Your task to perform on an android device: Search for "usb-c to usb-a" on amazon, select the first entry, and add it to the cart. Image 0: 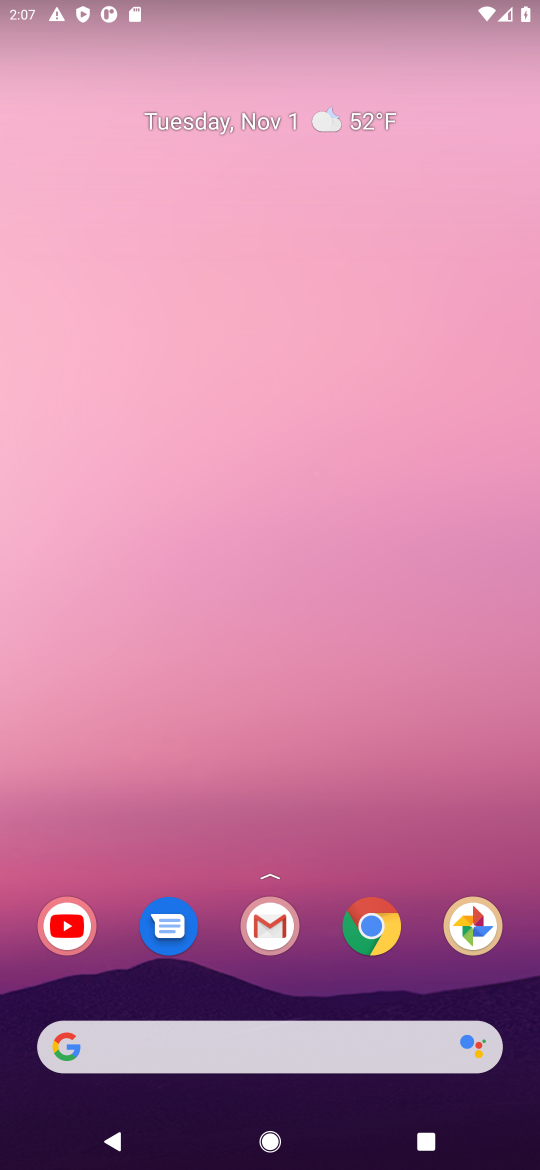
Step 0: click (464, 1087)
Your task to perform on an android device: Search for "usb-c to usb-a" on amazon, select the first entry, and add it to the cart. Image 1: 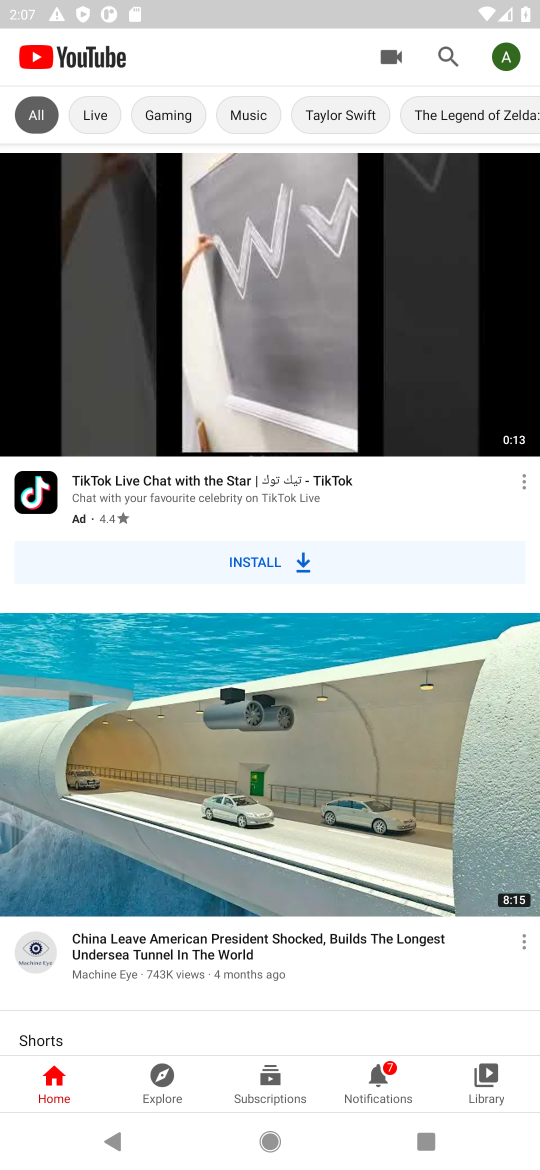
Step 1: press home button
Your task to perform on an android device: Search for "usb-c to usb-a" on amazon, select the first entry, and add it to the cart. Image 2: 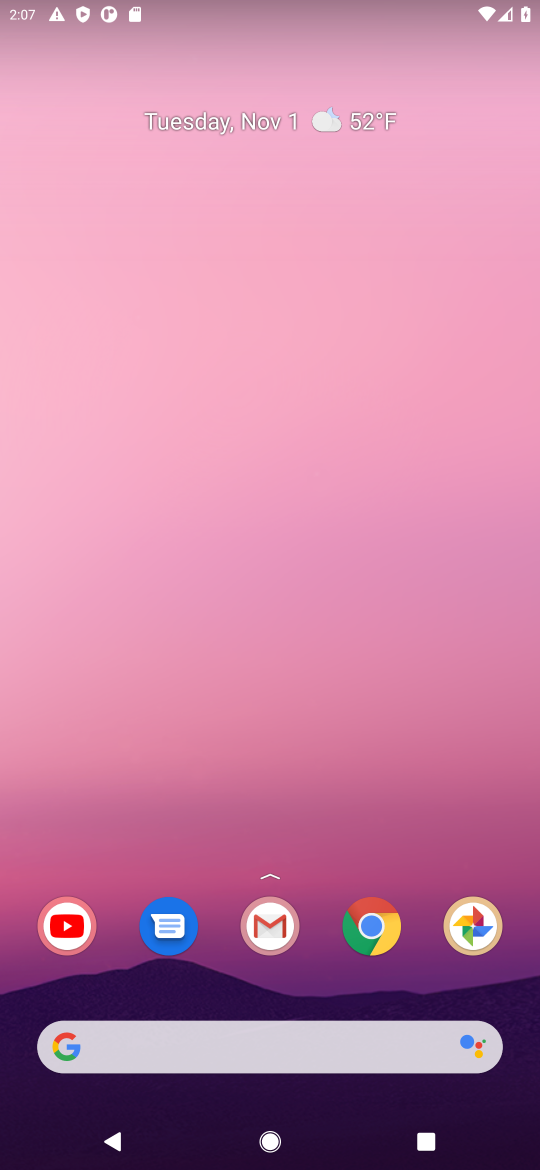
Step 2: click (370, 928)
Your task to perform on an android device: Search for "usb-c to usb-a" on amazon, select the first entry, and add it to the cart. Image 3: 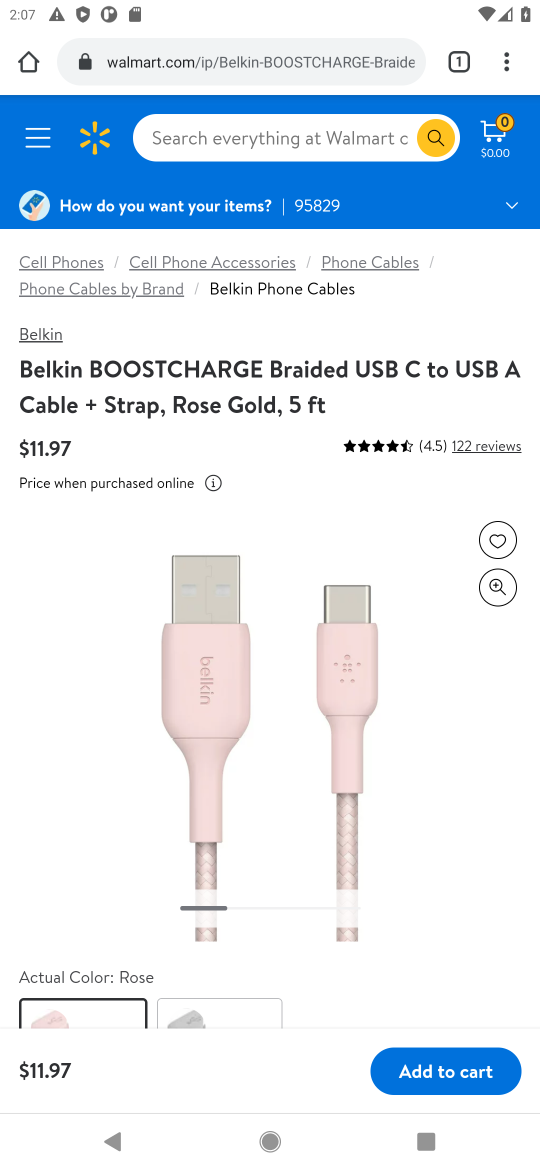
Step 3: click (303, 58)
Your task to perform on an android device: Search for "usb-c to usb-a" on amazon, select the first entry, and add it to the cart. Image 4: 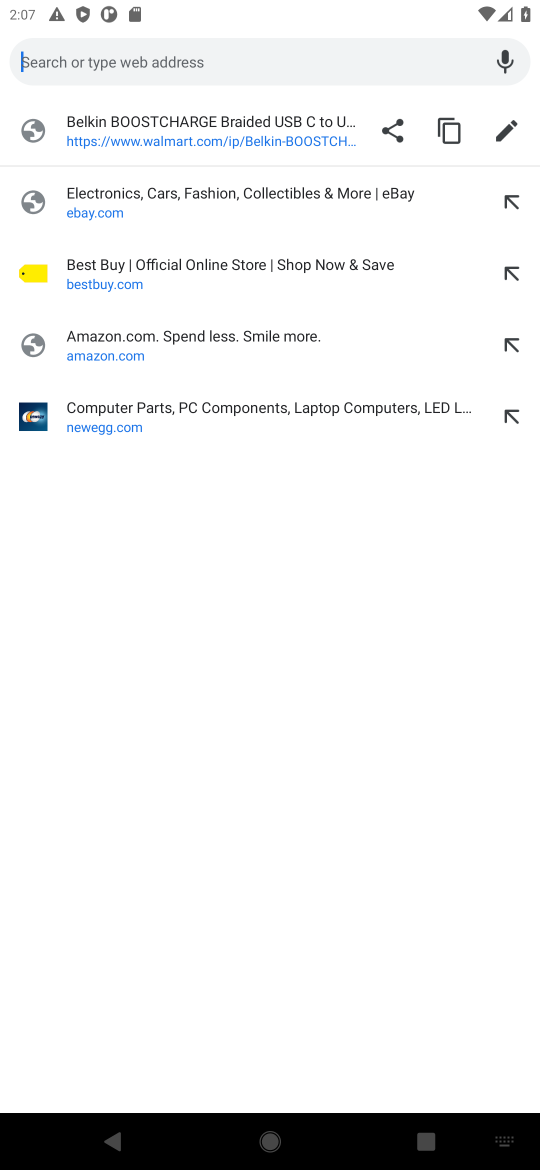
Step 4: type "amazon"
Your task to perform on an android device: Search for "usb-c to usb-a" on amazon, select the first entry, and add it to the cart. Image 5: 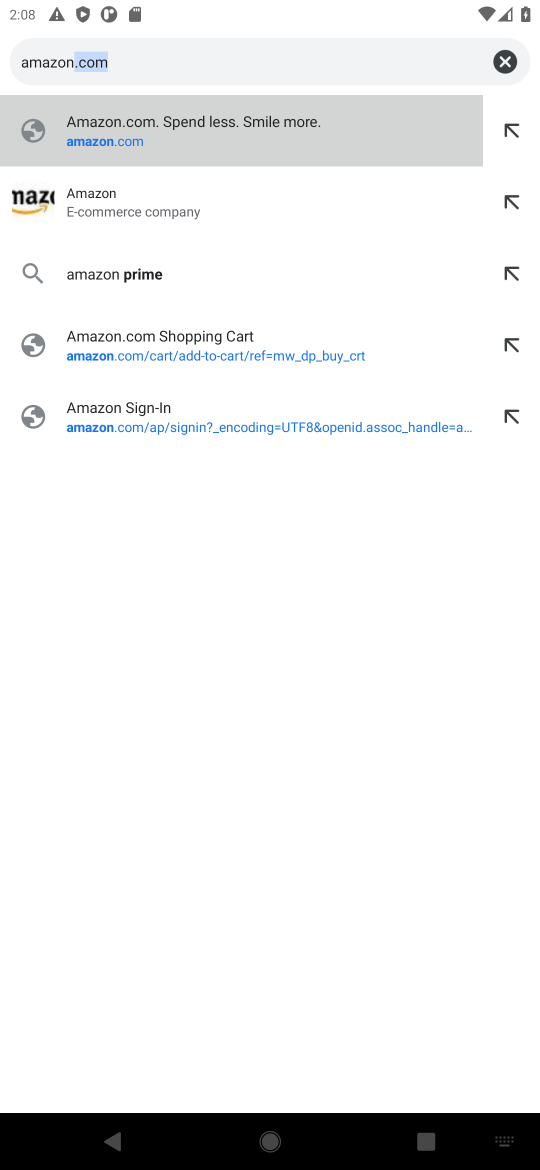
Step 5: press enter
Your task to perform on an android device: Search for "usb-c to usb-a" on amazon, select the first entry, and add it to the cart. Image 6: 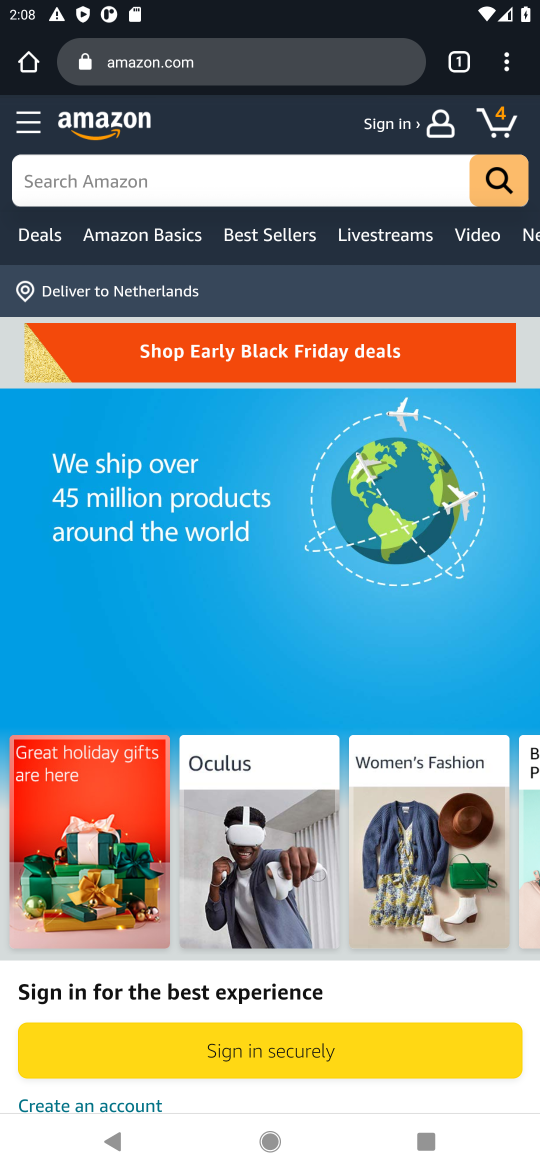
Step 6: click (212, 169)
Your task to perform on an android device: Search for "usb-c to usb-a" on amazon, select the first entry, and add it to the cart. Image 7: 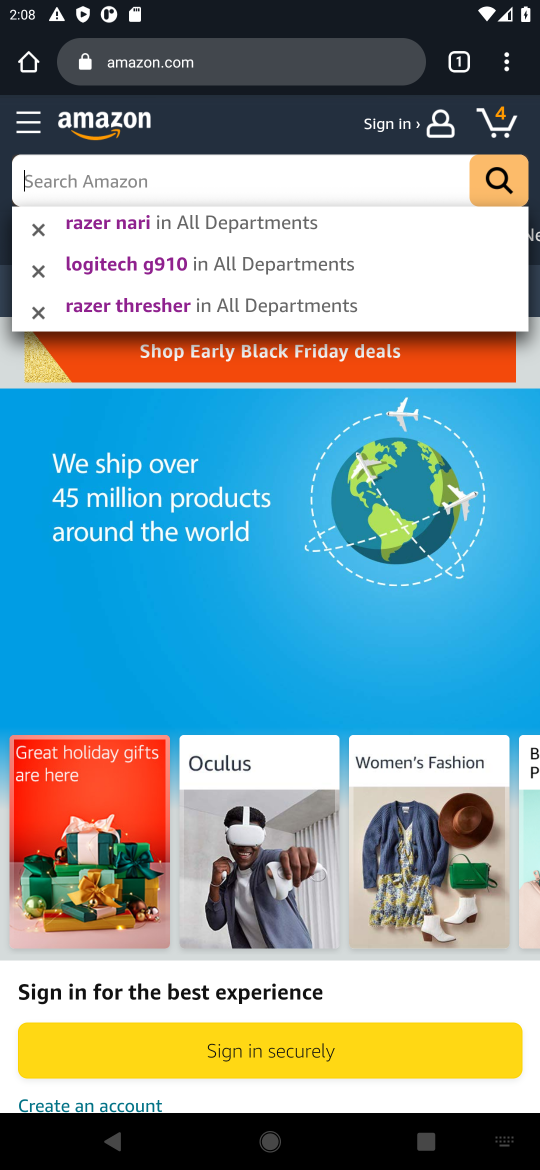
Step 7: type "usb-c to usb-a"
Your task to perform on an android device: Search for "usb-c to usb-a" on amazon, select the first entry, and add it to the cart. Image 8: 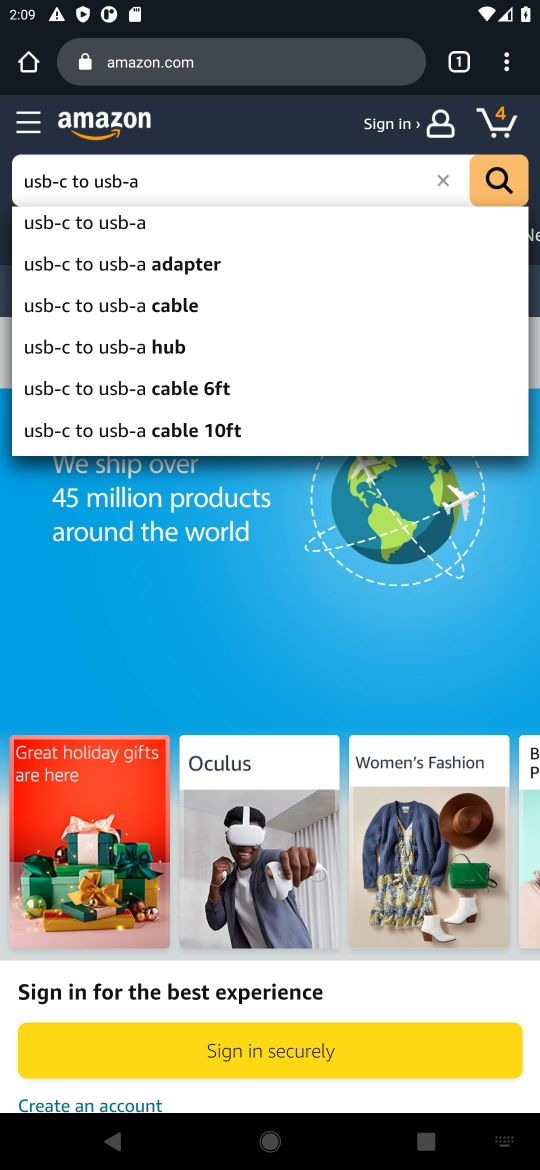
Step 8: press enter
Your task to perform on an android device: Search for "usb-c to usb-a" on amazon, select the first entry, and add it to the cart. Image 9: 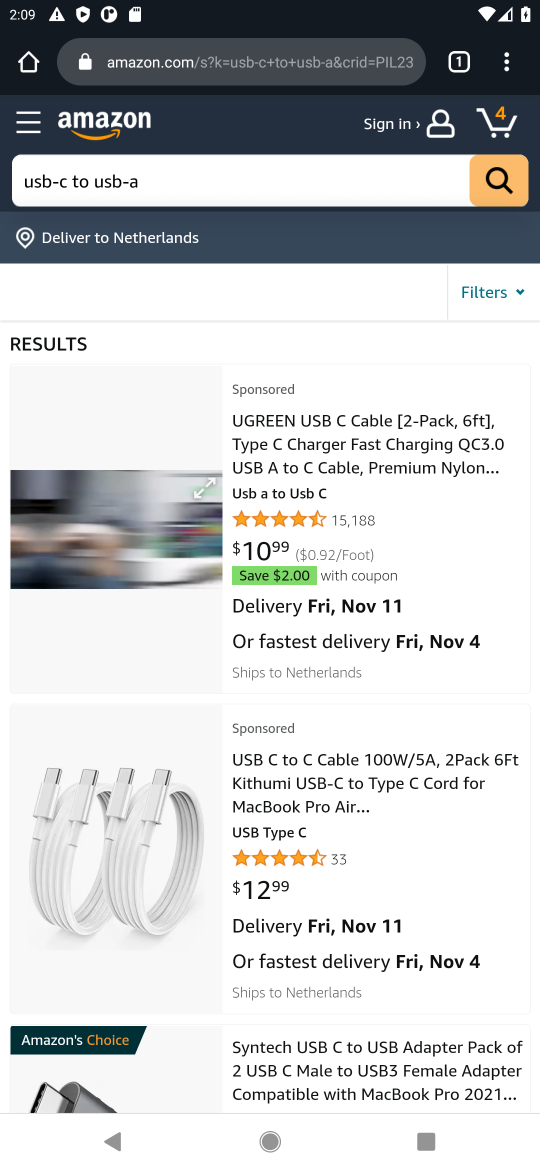
Step 9: click (310, 474)
Your task to perform on an android device: Search for "usb-c to usb-a" on amazon, select the first entry, and add it to the cart. Image 10: 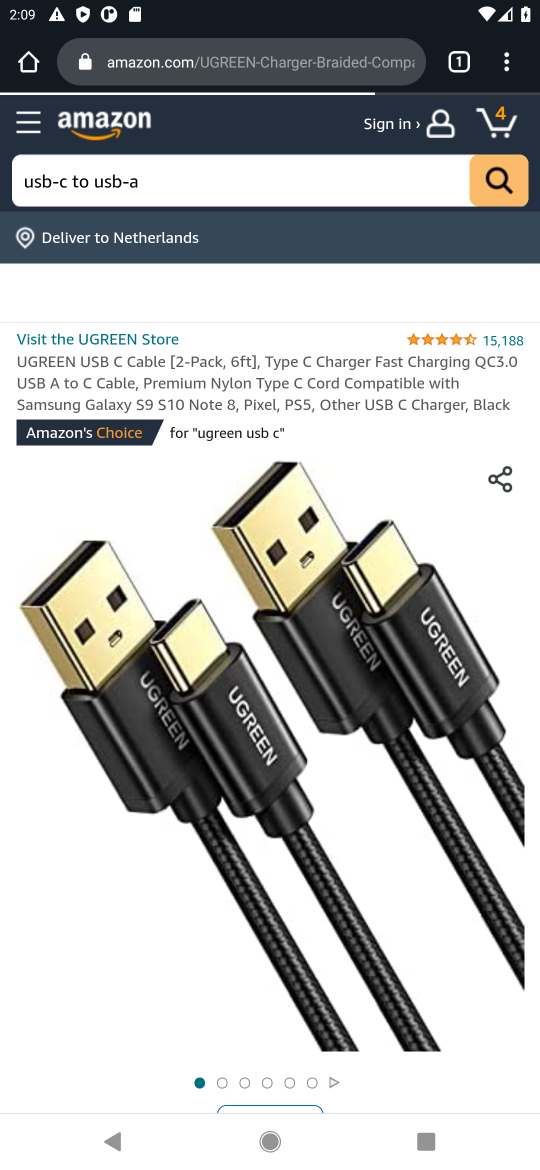
Step 10: task complete